Your task to perform on an android device: Set the phone to "Do not disturb". Image 0: 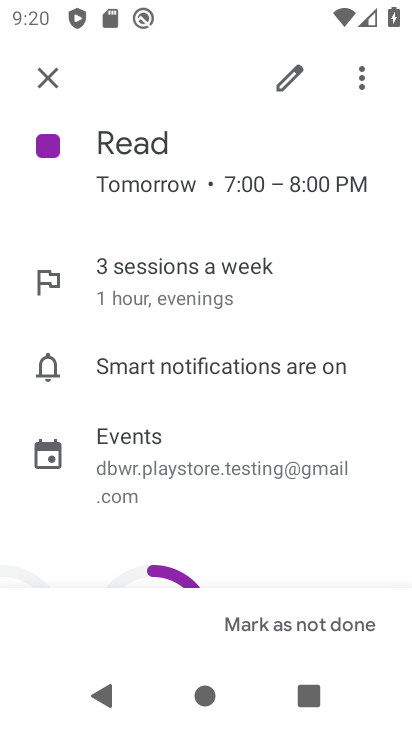
Step 0: press home button
Your task to perform on an android device: Set the phone to "Do not disturb". Image 1: 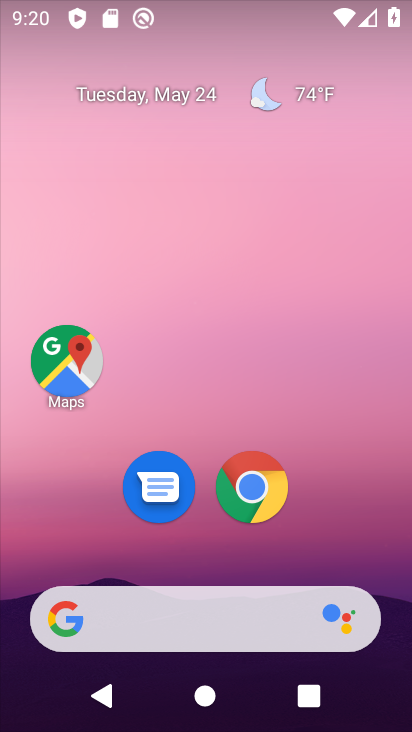
Step 1: drag from (329, 564) to (387, 14)
Your task to perform on an android device: Set the phone to "Do not disturb". Image 2: 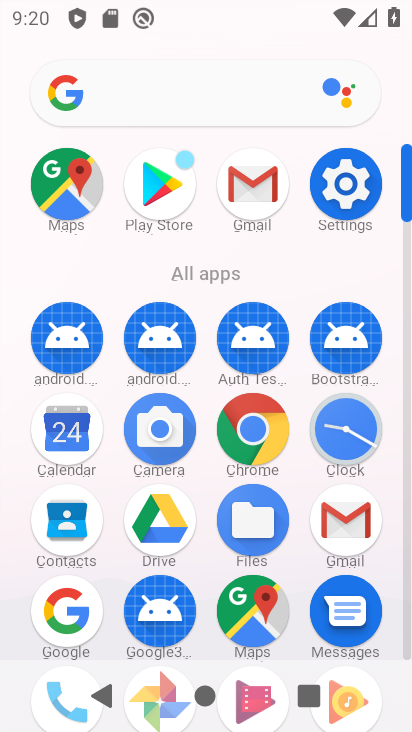
Step 2: click (349, 179)
Your task to perform on an android device: Set the phone to "Do not disturb". Image 3: 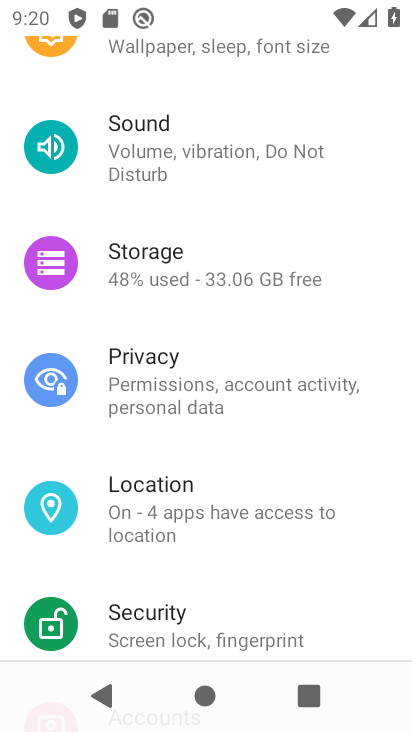
Step 3: click (143, 157)
Your task to perform on an android device: Set the phone to "Do not disturb". Image 4: 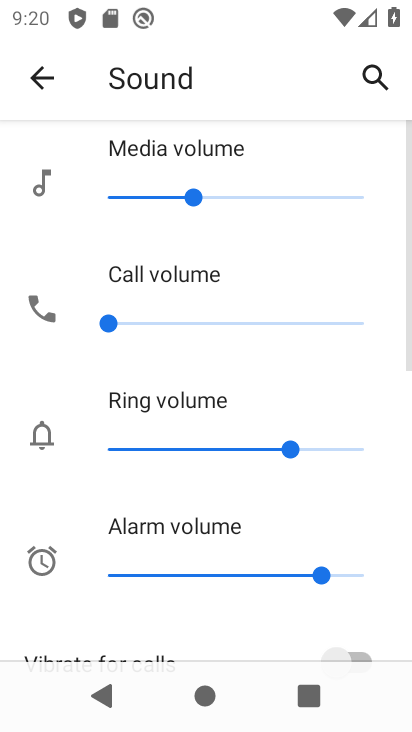
Step 4: drag from (336, 535) to (336, 101)
Your task to perform on an android device: Set the phone to "Do not disturb". Image 5: 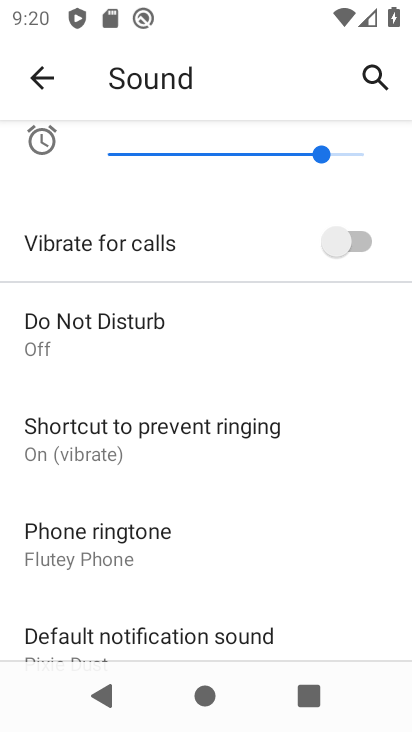
Step 5: click (83, 326)
Your task to perform on an android device: Set the phone to "Do not disturb". Image 6: 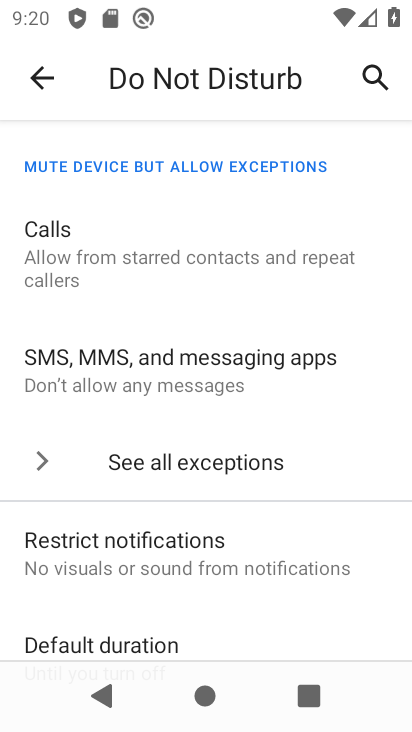
Step 6: drag from (194, 548) to (177, 165)
Your task to perform on an android device: Set the phone to "Do not disturb". Image 7: 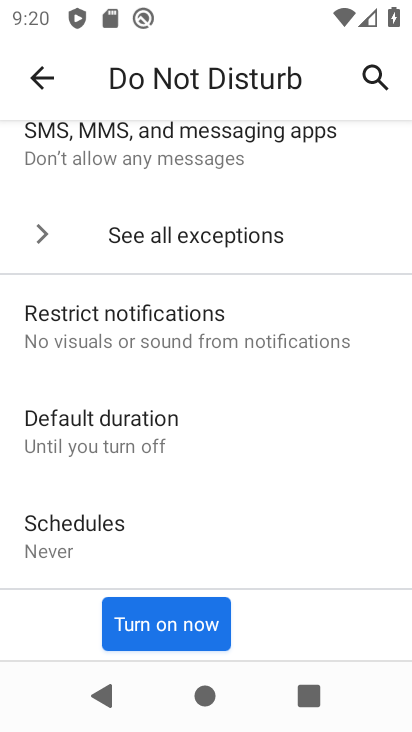
Step 7: click (148, 630)
Your task to perform on an android device: Set the phone to "Do not disturb". Image 8: 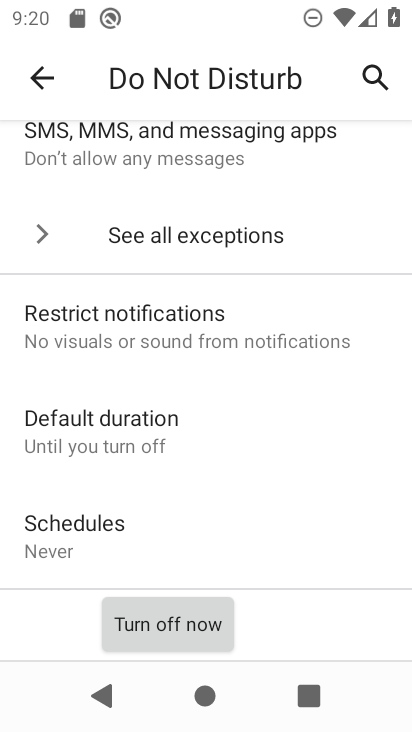
Step 8: task complete